Your task to perform on an android device: set an alarm Image 0: 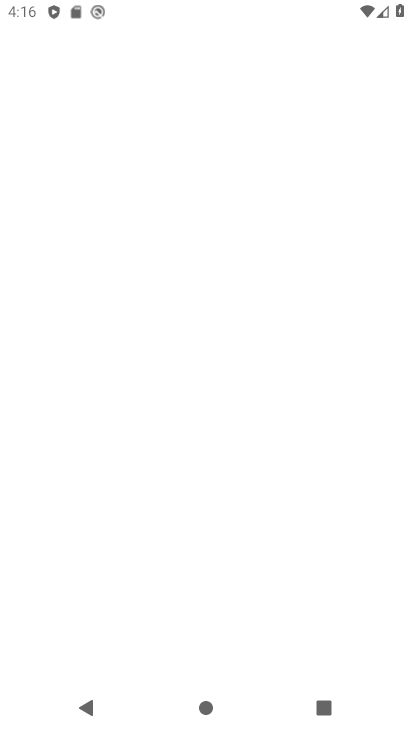
Step 0: click (132, 572)
Your task to perform on an android device: set an alarm Image 1: 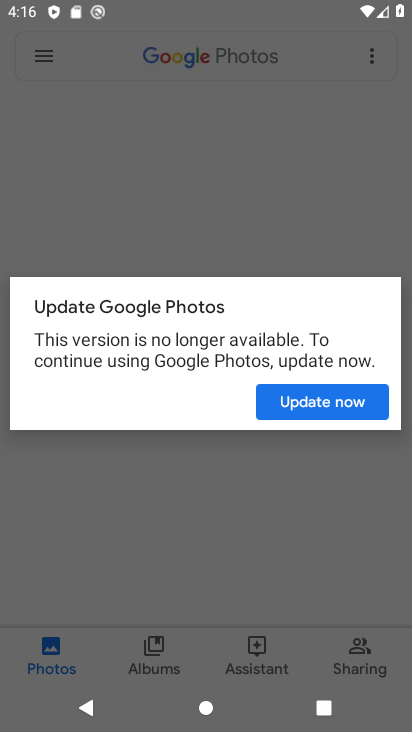
Step 1: press home button
Your task to perform on an android device: set an alarm Image 2: 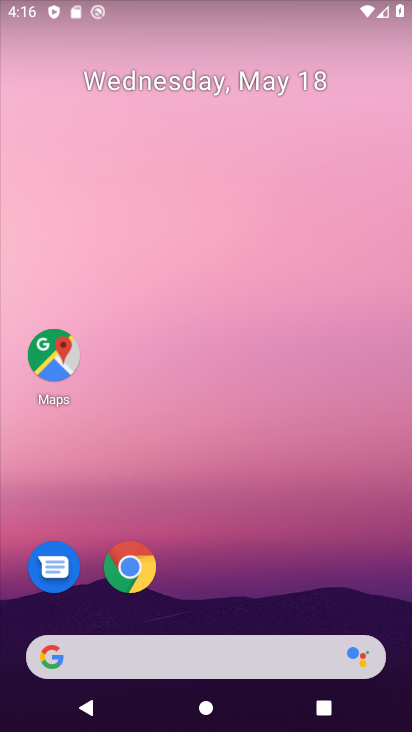
Step 2: drag from (168, 633) to (168, 260)
Your task to perform on an android device: set an alarm Image 3: 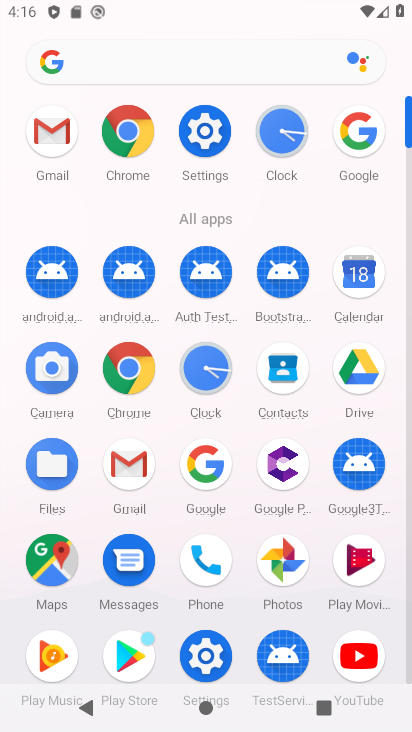
Step 3: click (218, 364)
Your task to perform on an android device: set an alarm Image 4: 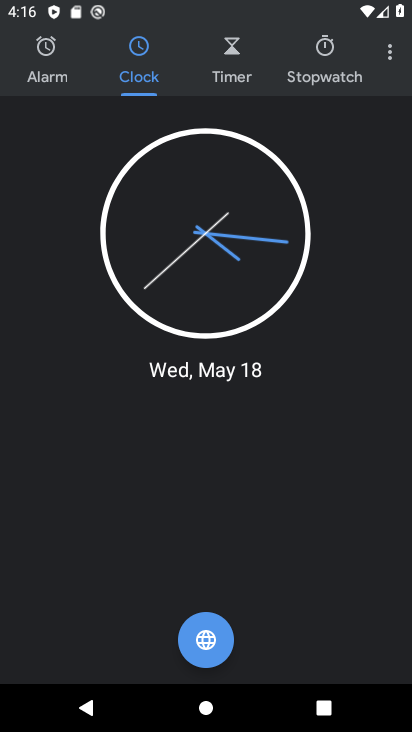
Step 4: click (37, 66)
Your task to perform on an android device: set an alarm Image 5: 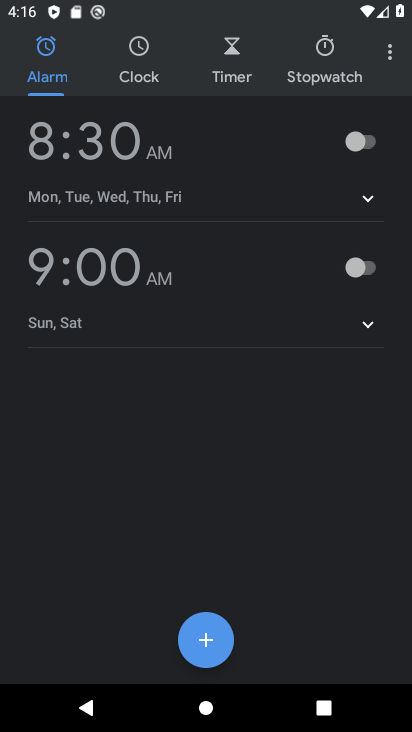
Step 5: click (216, 637)
Your task to perform on an android device: set an alarm Image 6: 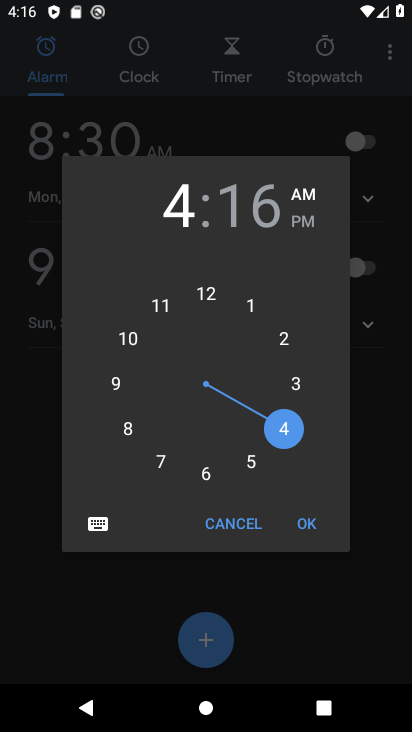
Step 6: click (168, 463)
Your task to perform on an android device: set an alarm Image 7: 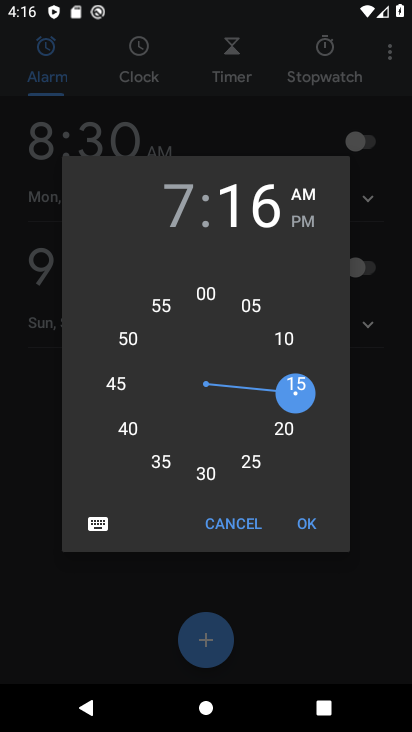
Step 7: click (165, 220)
Your task to perform on an android device: set an alarm Image 8: 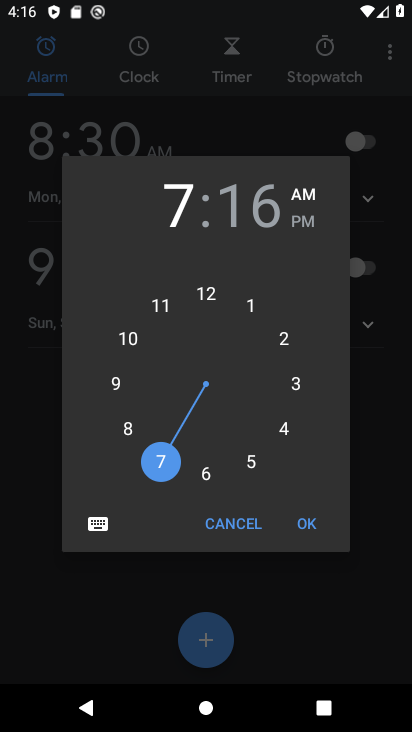
Step 8: click (260, 206)
Your task to perform on an android device: set an alarm Image 9: 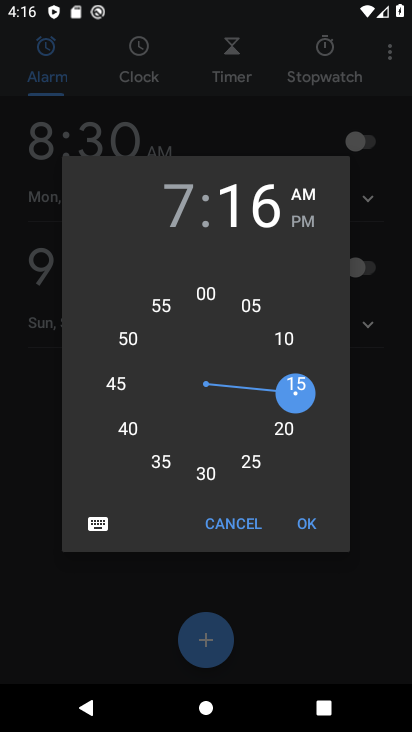
Step 9: click (205, 293)
Your task to perform on an android device: set an alarm Image 10: 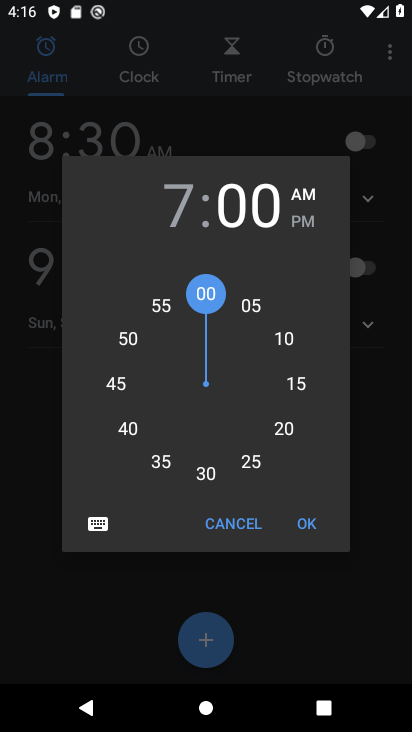
Step 10: click (303, 223)
Your task to perform on an android device: set an alarm Image 11: 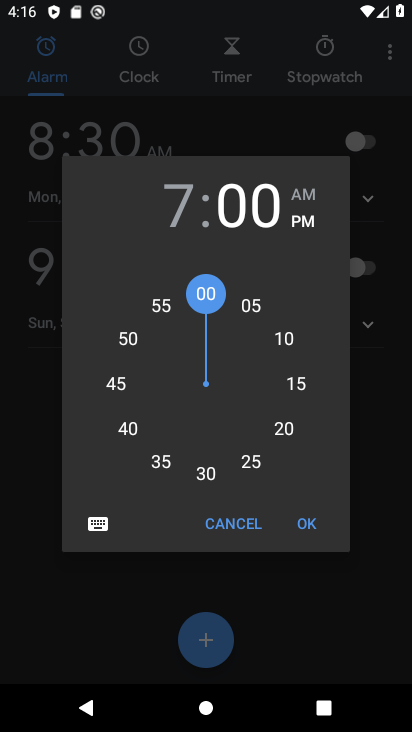
Step 11: click (205, 641)
Your task to perform on an android device: set an alarm Image 12: 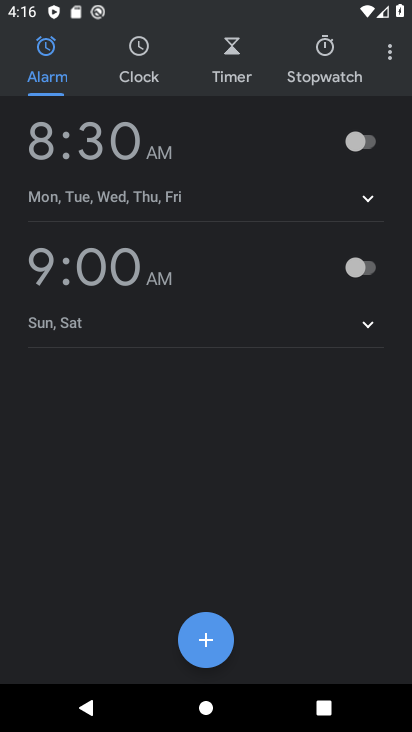
Step 12: click (212, 640)
Your task to perform on an android device: set an alarm Image 13: 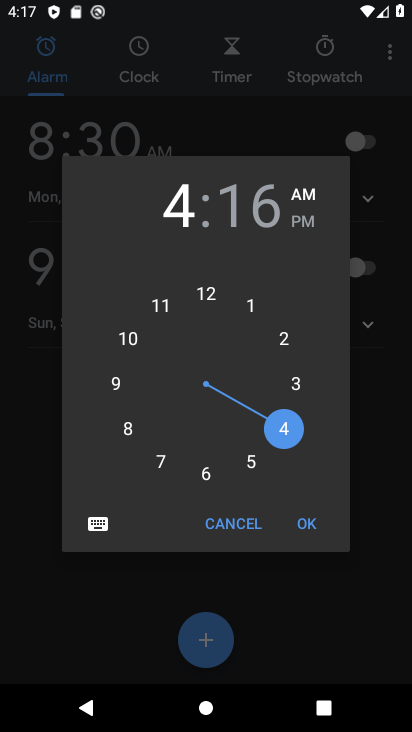
Step 13: click (158, 464)
Your task to perform on an android device: set an alarm Image 14: 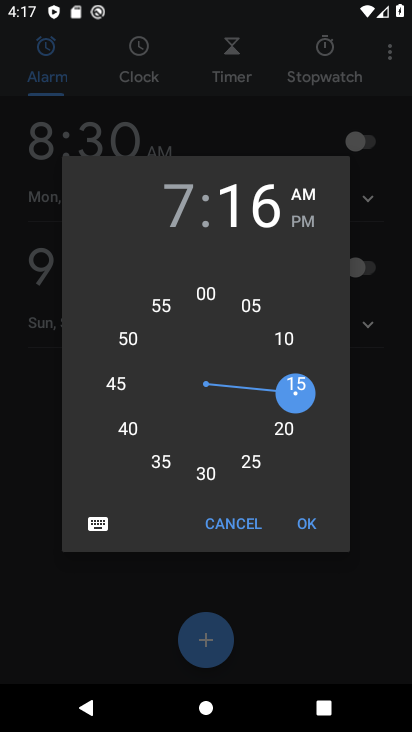
Step 14: click (209, 288)
Your task to perform on an android device: set an alarm Image 15: 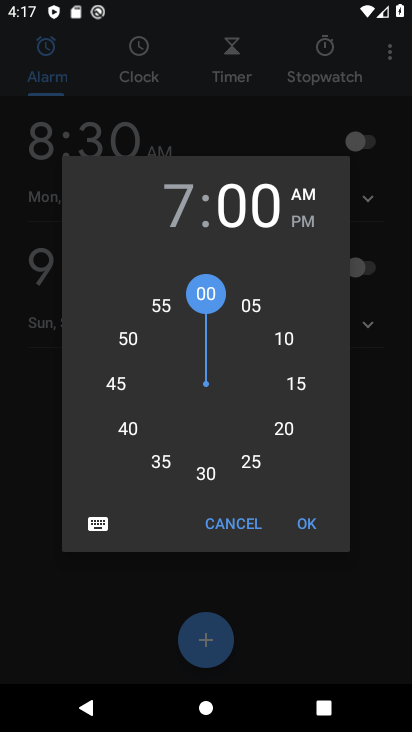
Step 15: click (307, 218)
Your task to perform on an android device: set an alarm Image 16: 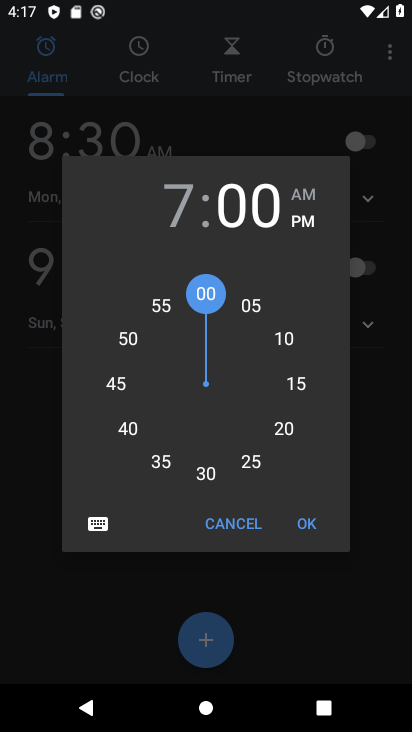
Step 16: click (309, 524)
Your task to perform on an android device: set an alarm Image 17: 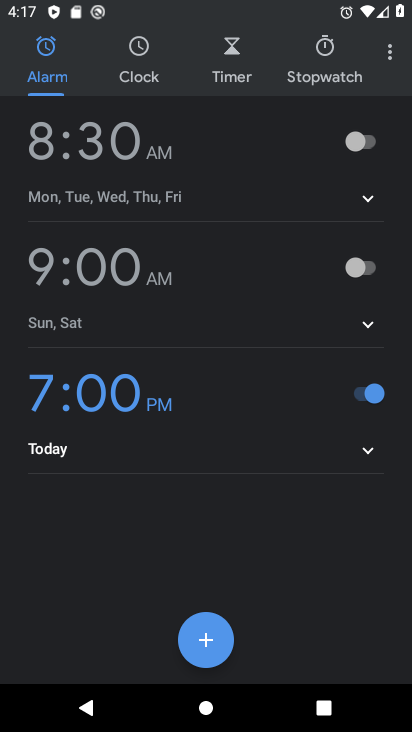
Step 17: task complete